Your task to perform on an android device: turn off notifications settings in the gmail app Image 0: 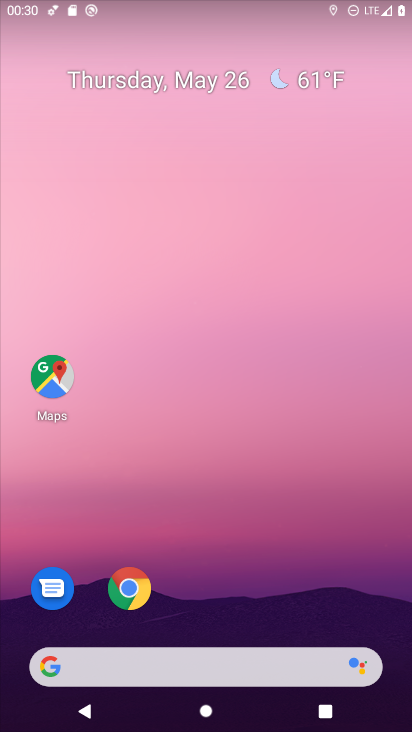
Step 0: drag from (264, 552) to (167, 183)
Your task to perform on an android device: turn off notifications settings in the gmail app Image 1: 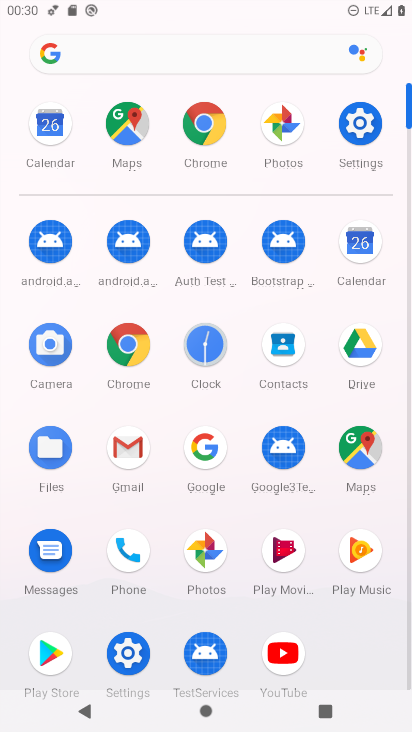
Step 1: click (133, 438)
Your task to perform on an android device: turn off notifications settings in the gmail app Image 2: 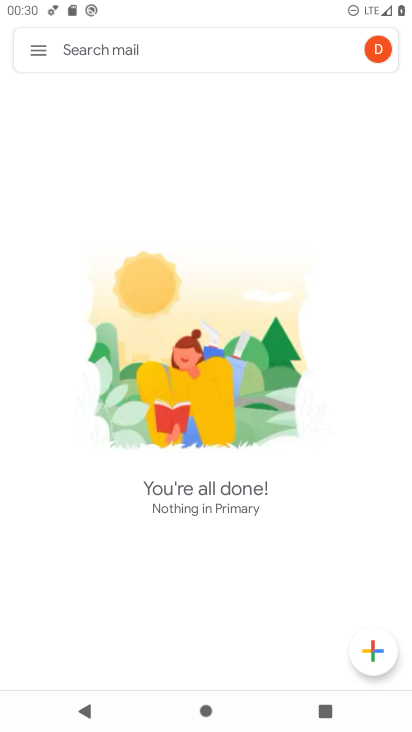
Step 2: click (32, 46)
Your task to perform on an android device: turn off notifications settings in the gmail app Image 3: 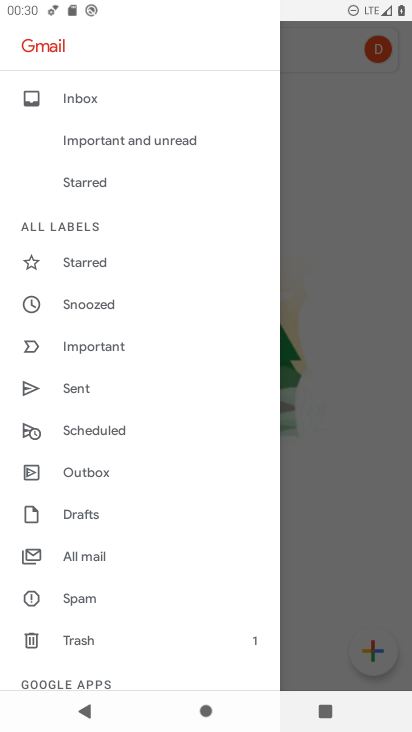
Step 3: drag from (142, 598) to (107, 271)
Your task to perform on an android device: turn off notifications settings in the gmail app Image 4: 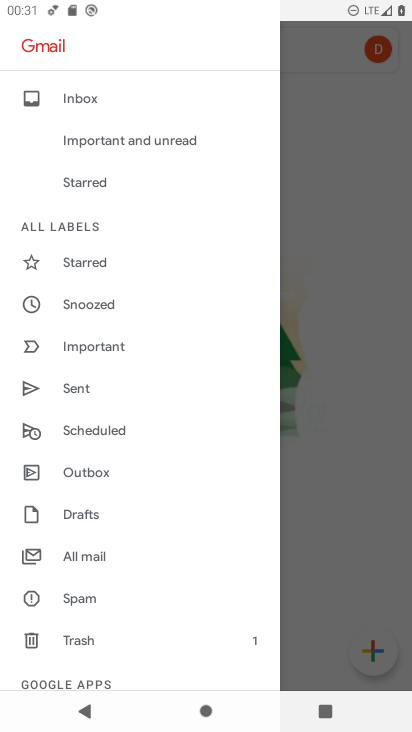
Step 4: drag from (165, 509) to (138, 218)
Your task to perform on an android device: turn off notifications settings in the gmail app Image 5: 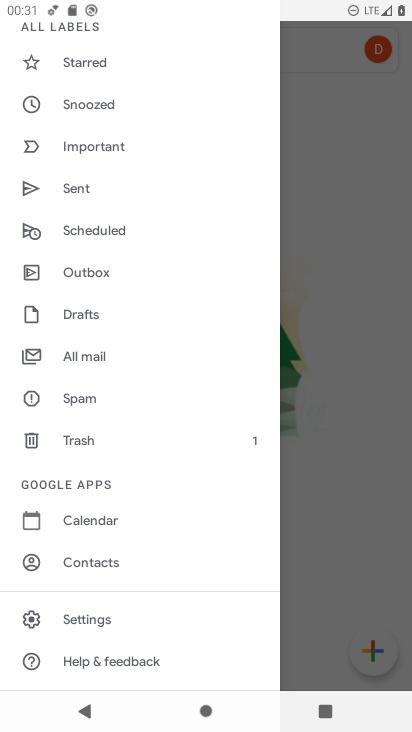
Step 5: click (92, 611)
Your task to perform on an android device: turn off notifications settings in the gmail app Image 6: 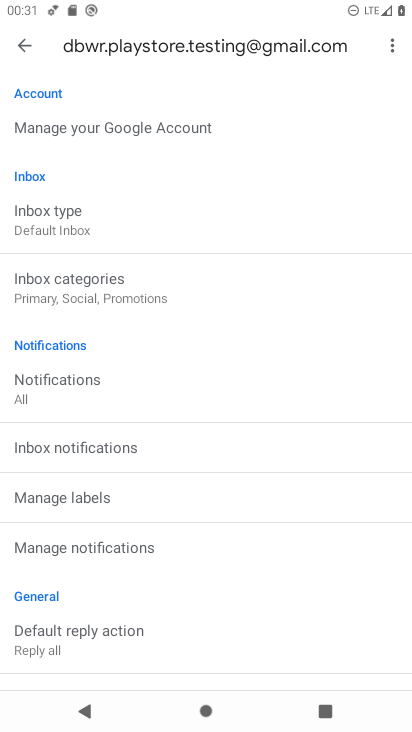
Step 6: drag from (177, 583) to (130, 310)
Your task to perform on an android device: turn off notifications settings in the gmail app Image 7: 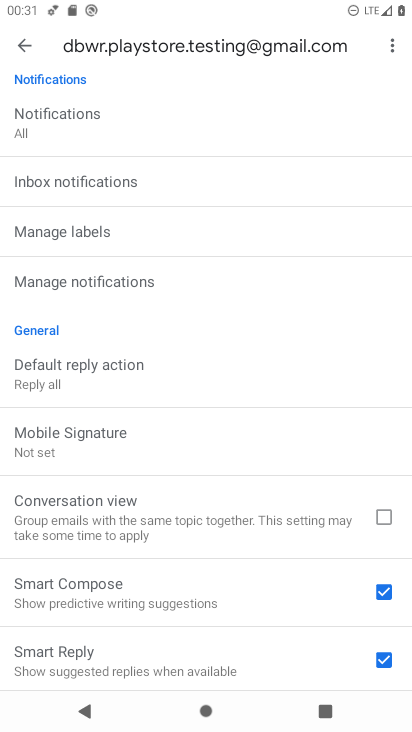
Step 7: click (179, 569)
Your task to perform on an android device: turn off notifications settings in the gmail app Image 8: 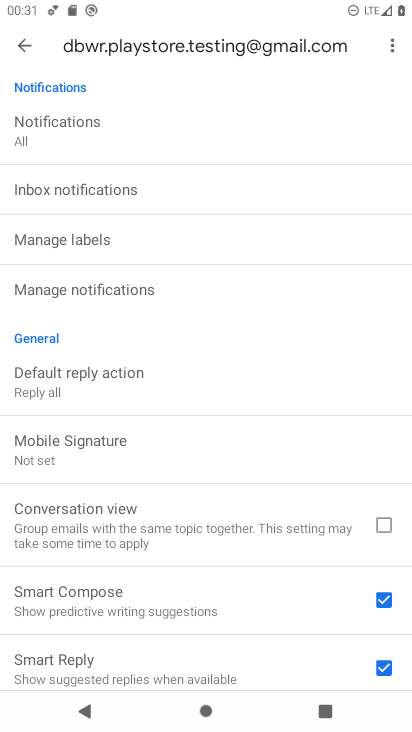
Step 8: click (19, 47)
Your task to perform on an android device: turn off notifications settings in the gmail app Image 9: 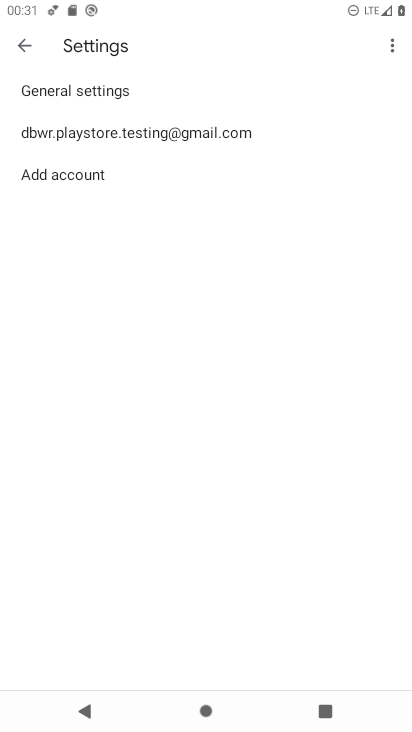
Step 9: click (53, 77)
Your task to perform on an android device: turn off notifications settings in the gmail app Image 10: 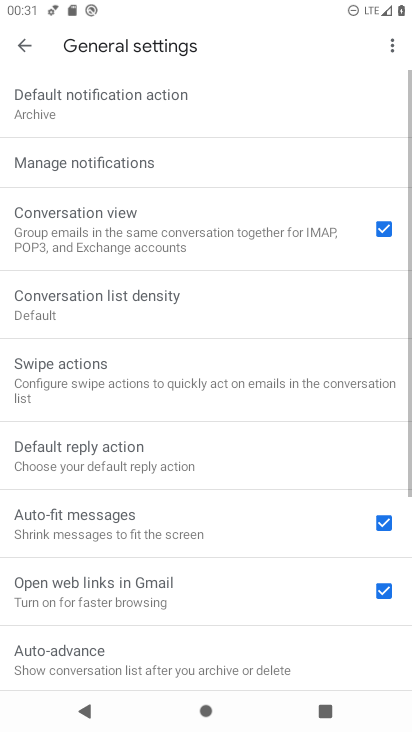
Step 10: click (84, 177)
Your task to perform on an android device: turn off notifications settings in the gmail app Image 11: 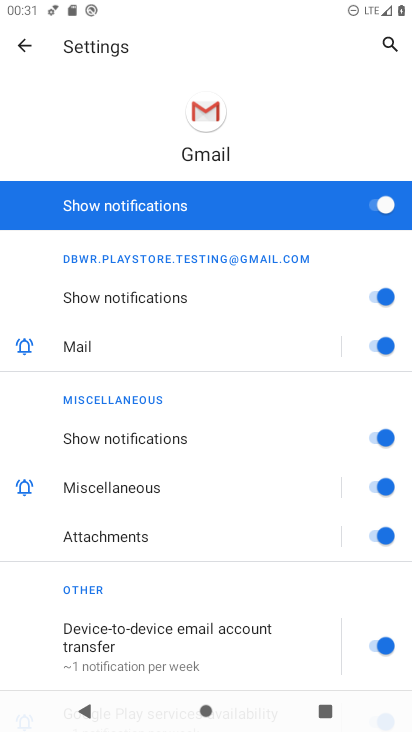
Step 11: click (372, 206)
Your task to perform on an android device: turn off notifications settings in the gmail app Image 12: 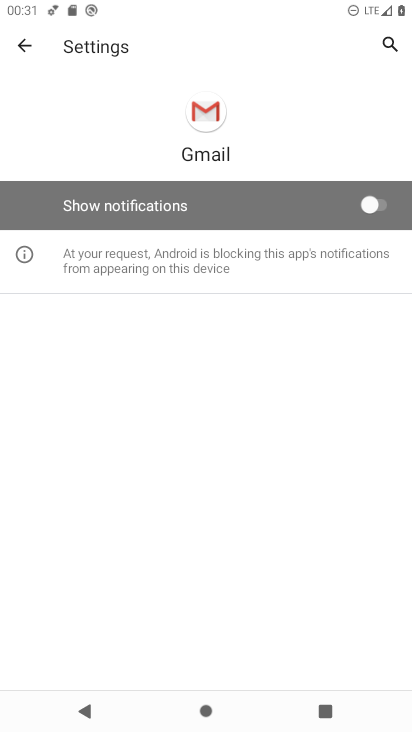
Step 12: task complete